Your task to perform on an android device: Open maps Image 0: 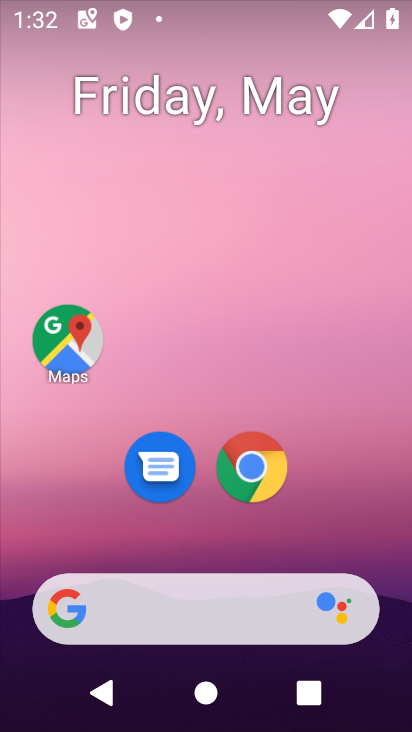
Step 0: click (69, 352)
Your task to perform on an android device: Open maps Image 1: 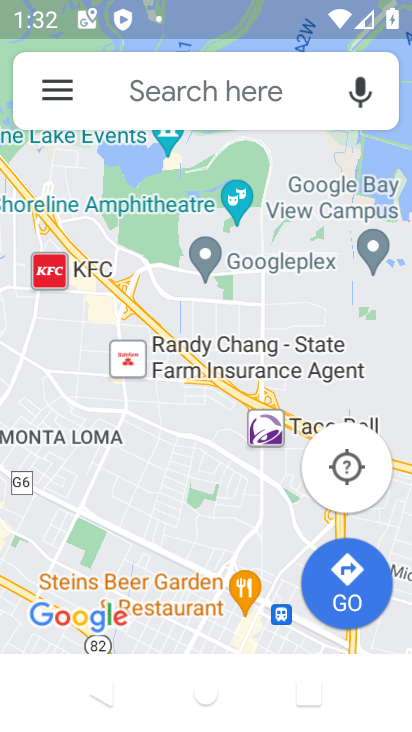
Step 1: task complete